Your task to perform on an android device: Go to Amazon Image 0: 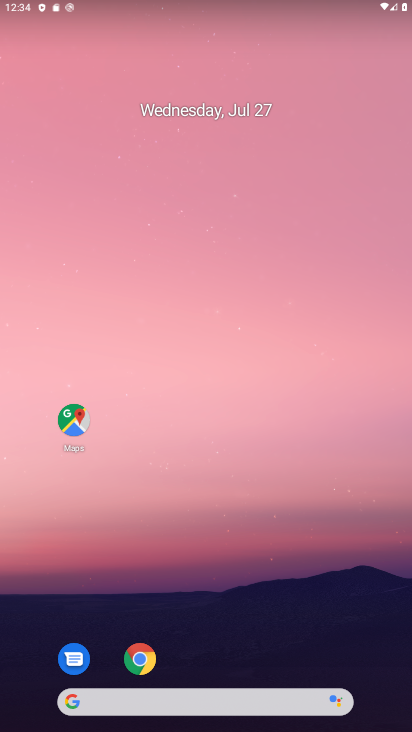
Step 0: drag from (347, 645) to (199, 0)
Your task to perform on an android device: Go to Amazon Image 1: 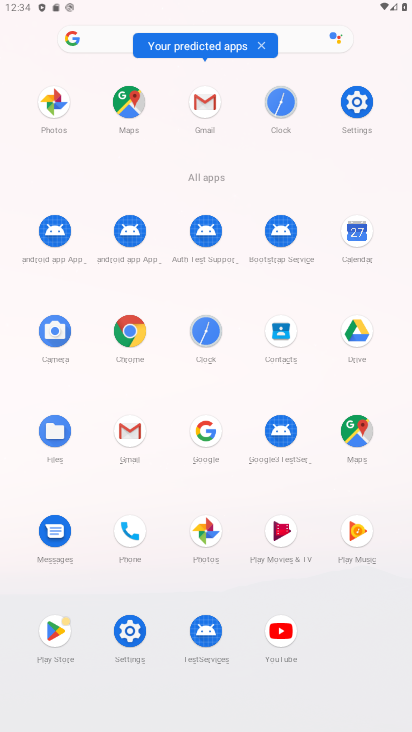
Step 1: click (127, 327)
Your task to perform on an android device: Go to Amazon Image 2: 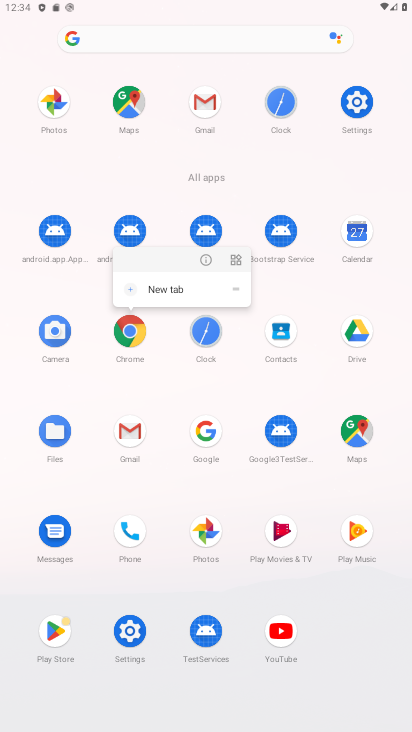
Step 2: click (133, 333)
Your task to perform on an android device: Go to Amazon Image 3: 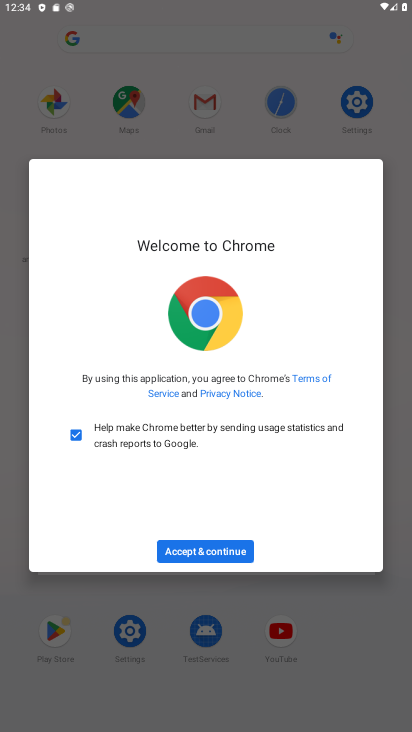
Step 3: click (223, 553)
Your task to perform on an android device: Go to Amazon Image 4: 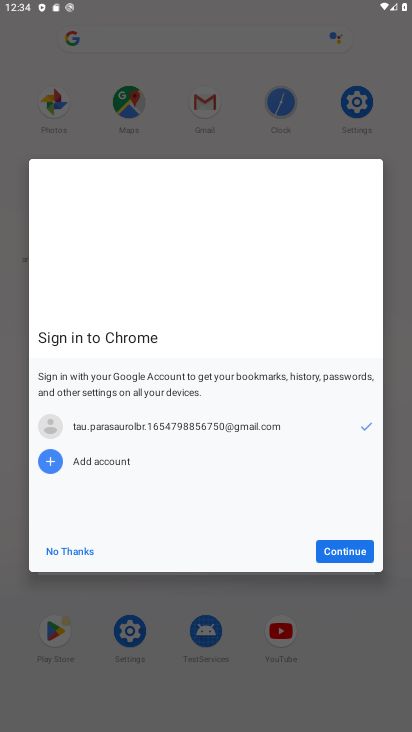
Step 4: click (366, 546)
Your task to perform on an android device: Go to Amazon Image 5: 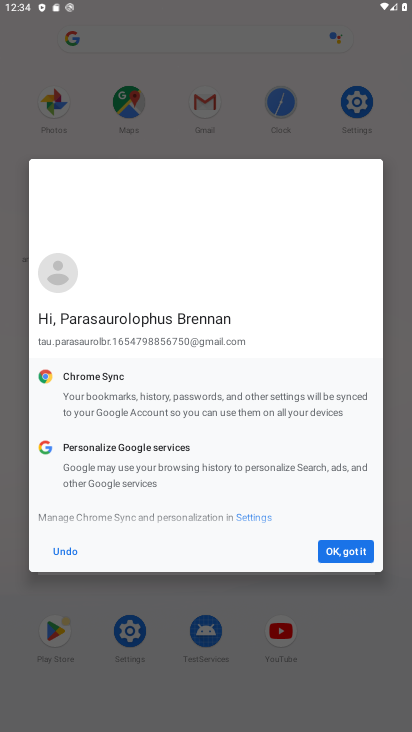
Step 5: click (357, 556)
Your task to perform on an android device: Go to Amazon Image 6: 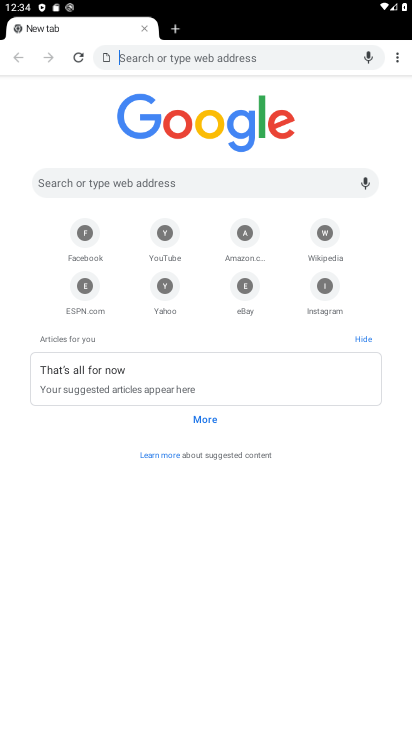
Step 6: click (251, 231)
Your task to perform on an android device: Go to Amazon Image 7: 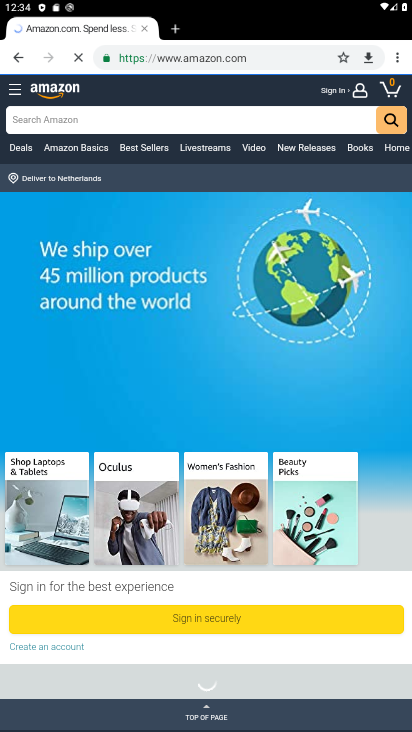
Step 7: task complete